Your task to perform on an android device: clear history in the chrome app Image 0: 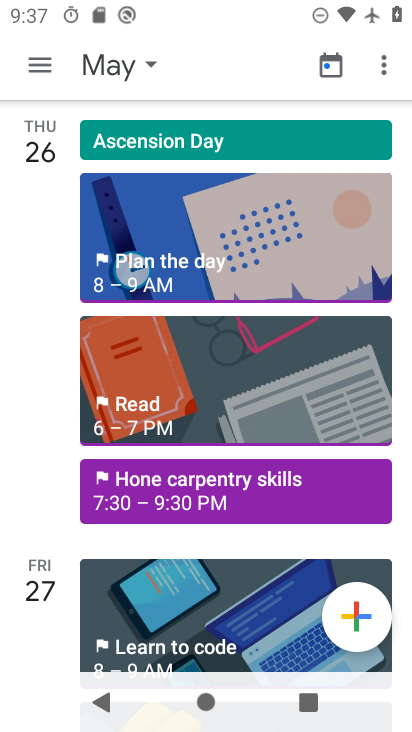
Step 0: press home button
Your task to perform on an android device: clear history in the chrome app Image 1: 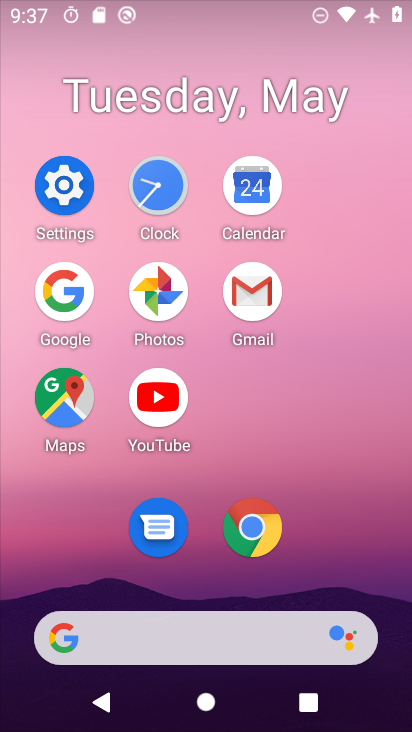
Step 1: click (273, 530)
Your task to perform on an android device: clear history in the chrome app Image 2: 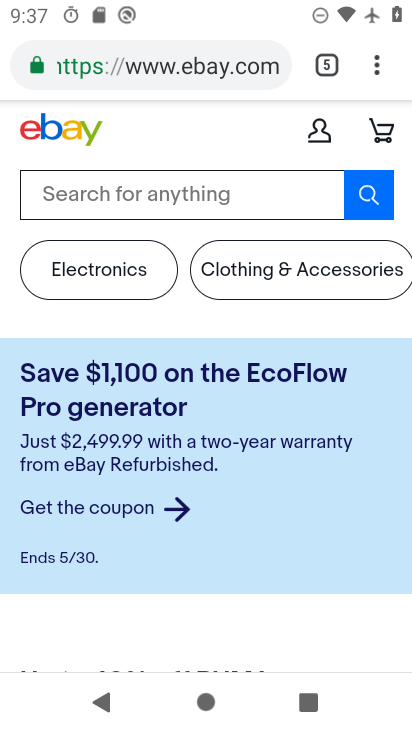
Step 2: click (372, 83)
Your task to perform on an android device: clear history in the chrome app Image 3: 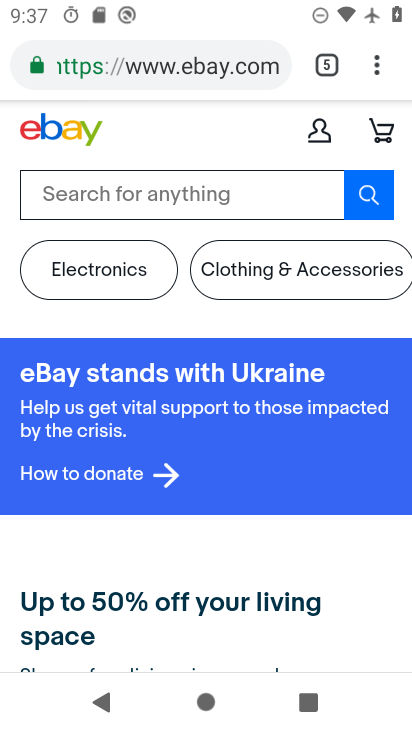
Step 3: click (376, 71)
Your task to perform on an android device: clear history in the chrome app Image 4: 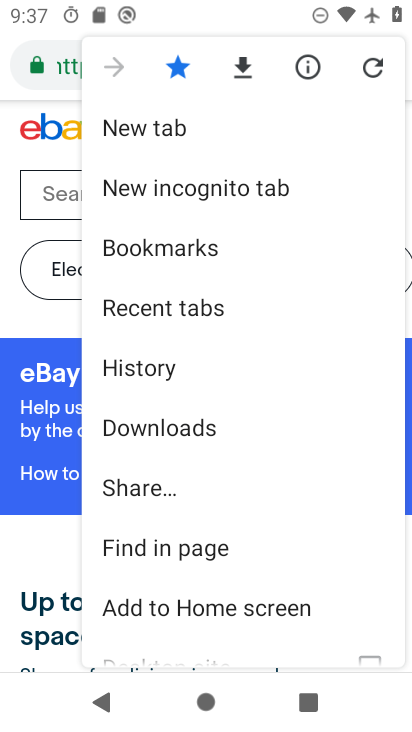
Step 4: click (172, 353)
Your task to perform on an android device: clear history in the chrome app Image 5: 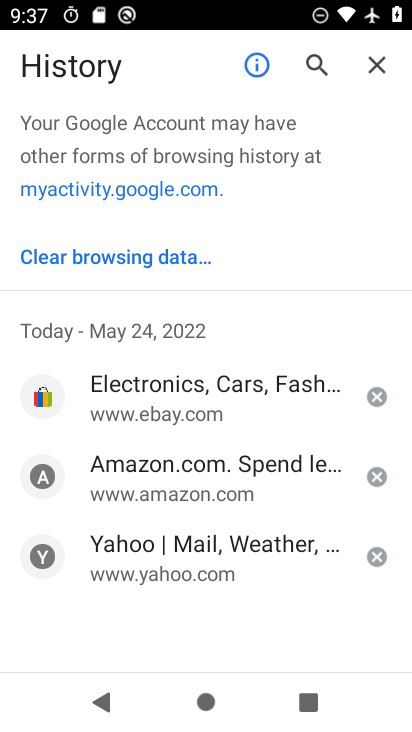
Step 5: click (126, 252)
Your task to perform on an android device: clear history in the chrome app Image 6: 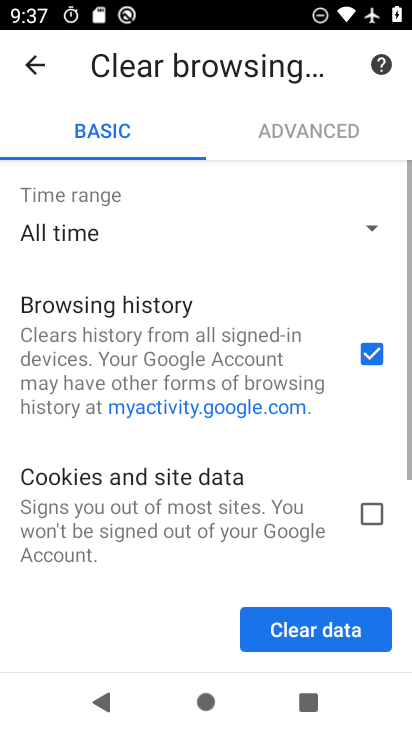
Step 6: click (333, 626)
Your task to perform on an android device: clear history in the chrome app Image 7: 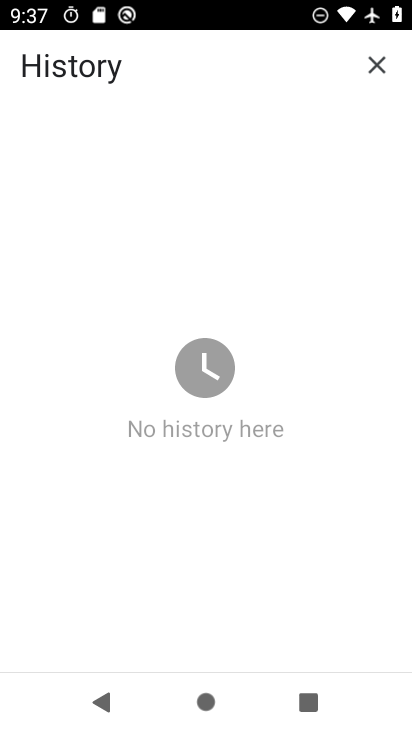
Step 7: task complete